Your task to perform on an android device: open chrome and create a bookmark for the current page Image 0: 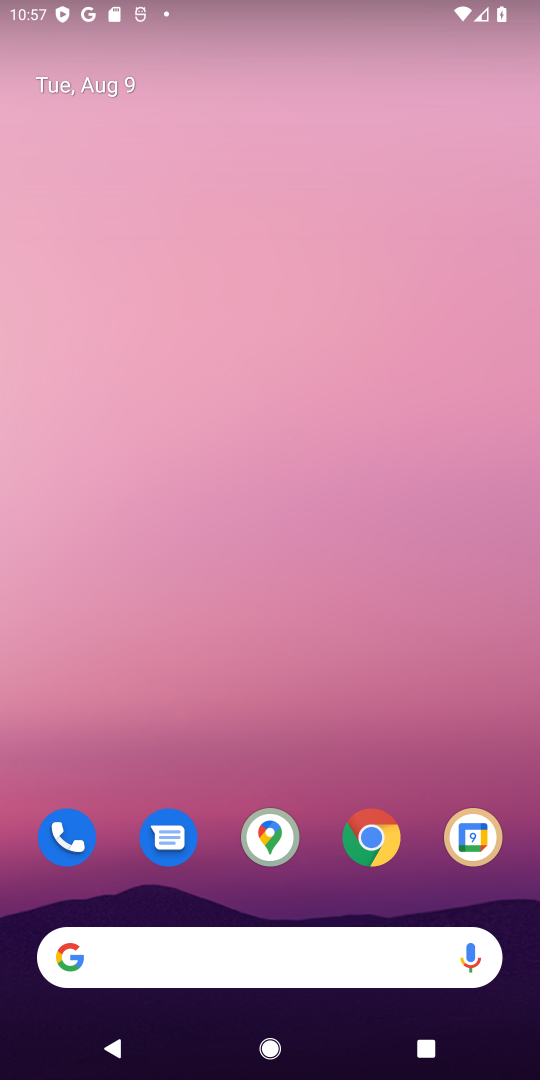
Step 0: click (372, 839)
Your task to perform on an android device: open chrome and create a bookmark for the current page Image 1: 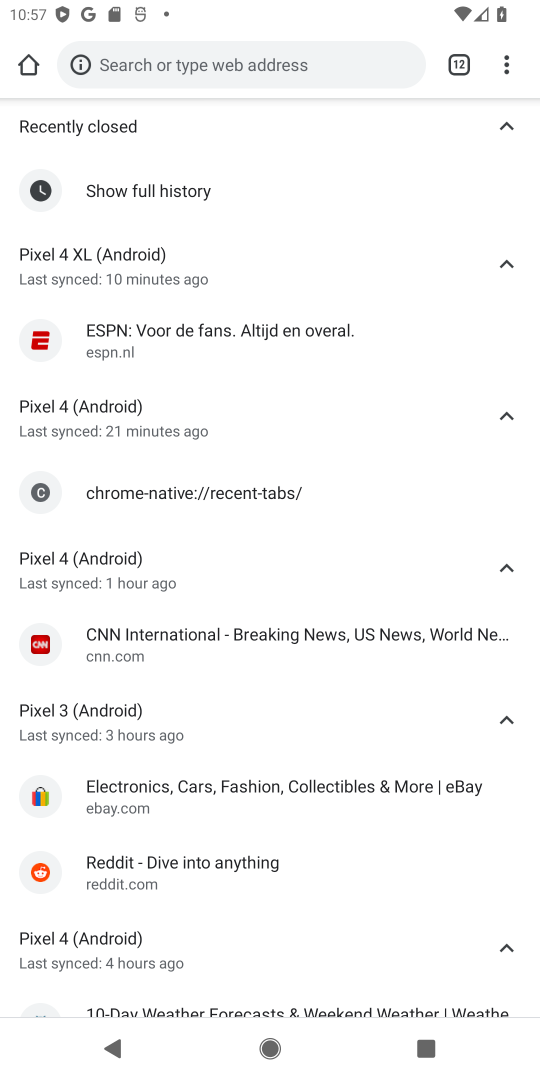
Step 1: click (505, 67)
Your task to perform on an android device: open chrome and create a bookmark for the current page Image 2: 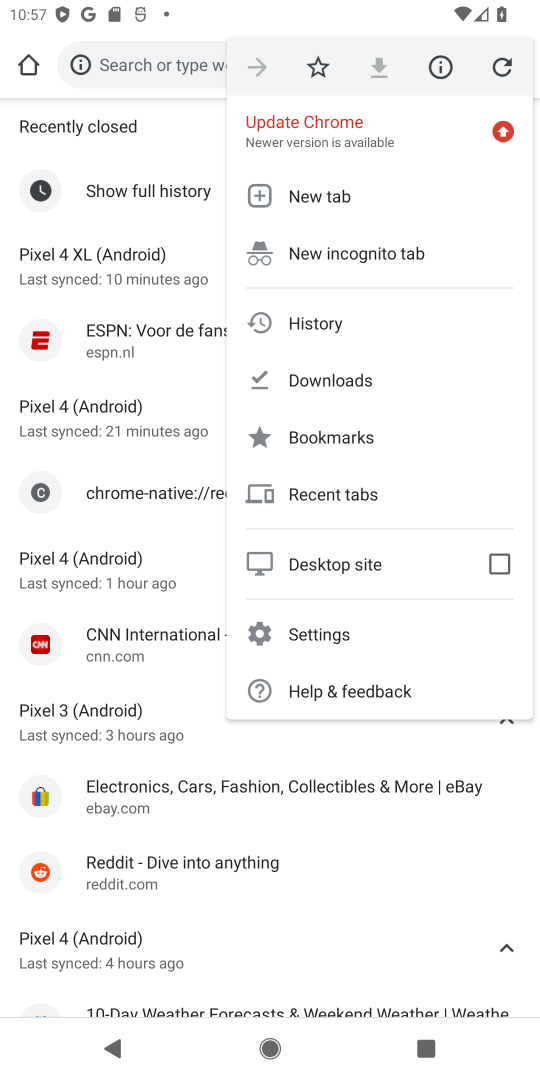
Step 2: click (321, 64)
Your task to perform on an android device: open chrome and create a bookmark for the current page Image 3: 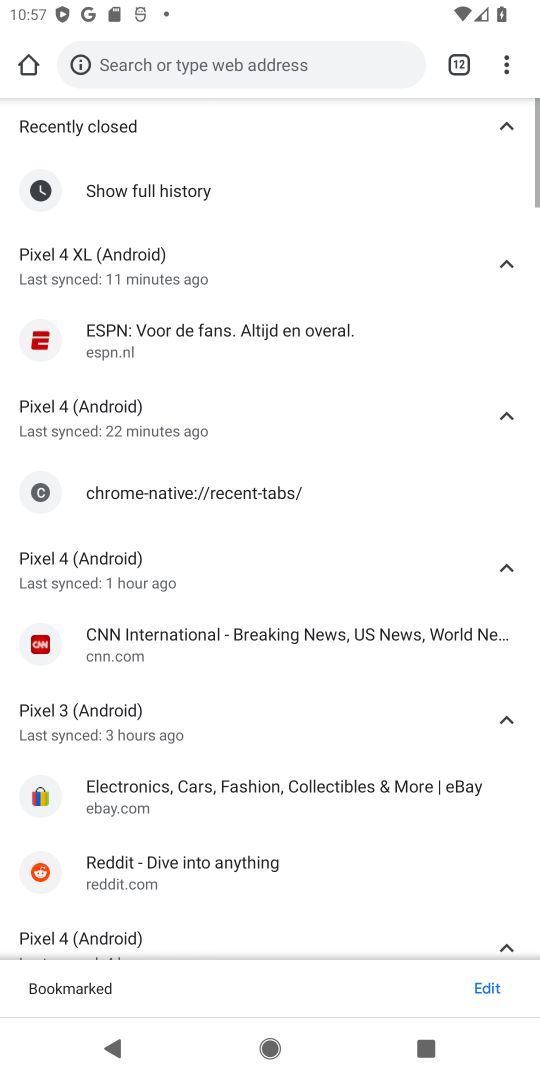
Step 3: task complete